Your task to perform on an android device: star an email in the gmail app Image 0: 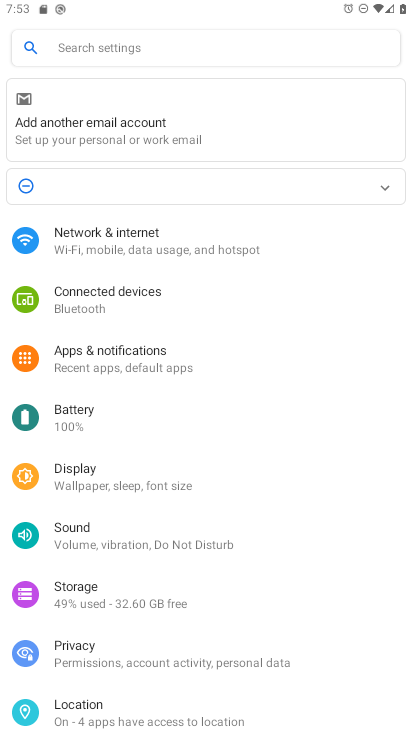
Step 0: press home button
Your task to perform on an android device: star an email in the gmail app Image 1: 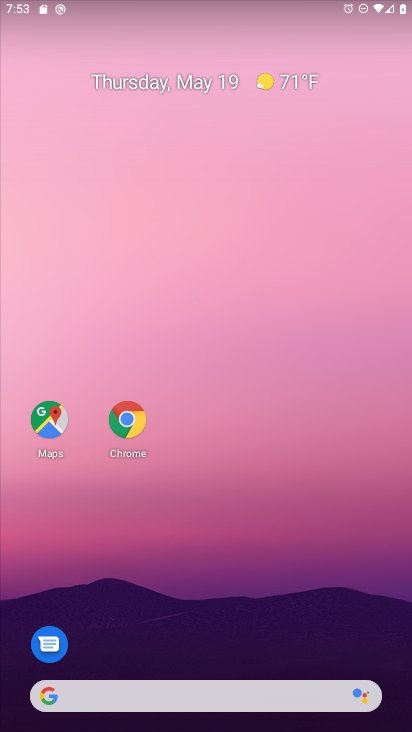
Step 1: drag from (162, 677) to (198, 397)
Your task to perform on an android device: star an email in the gmail app Image 2: 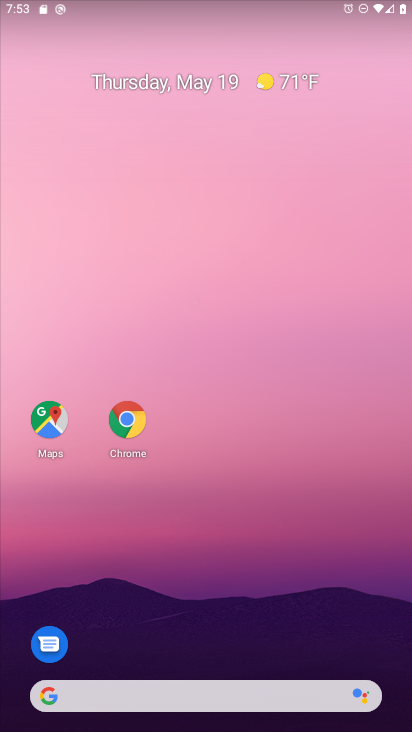
Step 2: drag from (150, 678) to (162, 370)
Your task to perform on an android device: star an email in the gmail app Image 3: 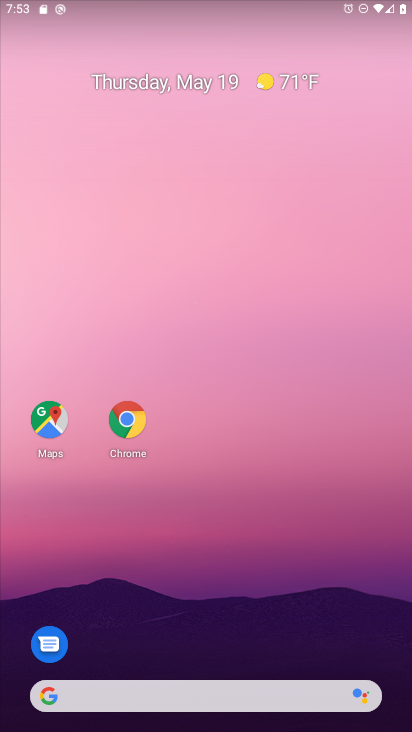
Step 3: drag from (224, 673) to (263, 368)
Your task to perform on an android device: star an email in the gmail app Image 4: 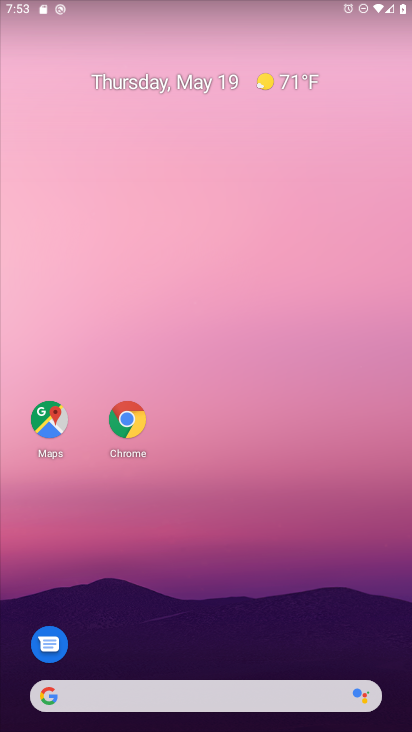
Step 4: drag from (211, 655) to (213, 256)
Your task to perform on an android device: star an email in the gmail app Image 5: 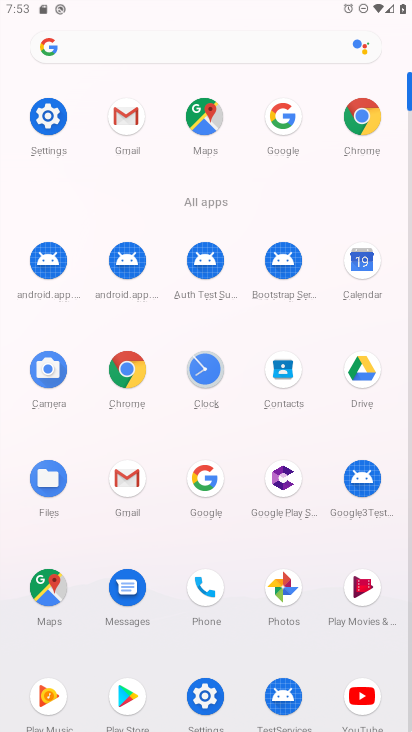
Step 5: click (132, 121)
Your task to perform on an android device: star an email in the gmail app Image 6: 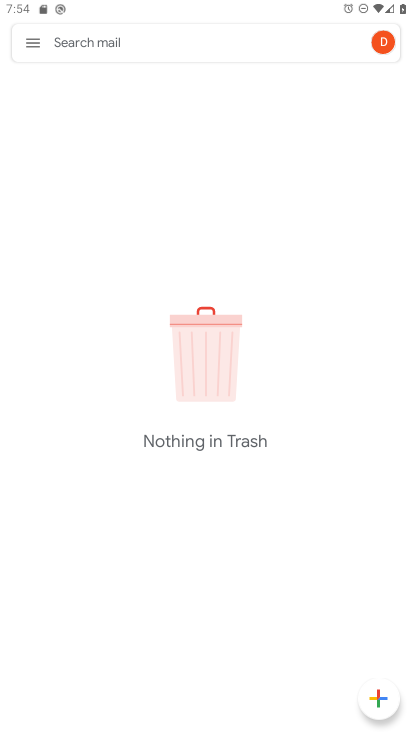
Step 6: click (35, 41)
Your task to perform on an android device: star an email in the gmail app Image 7: 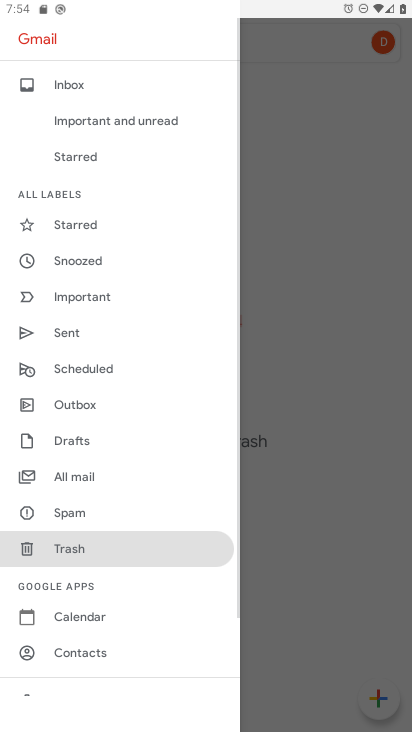
Step 7: click (72, 86)
Your task to perform on an android device: star an email in the gmail app Image 8: 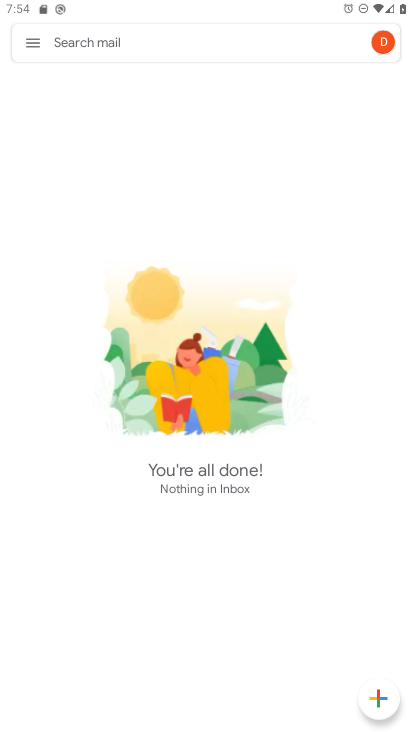
Step 8: task complete